Your task to perform on an android device: Open Amazon Image 0: 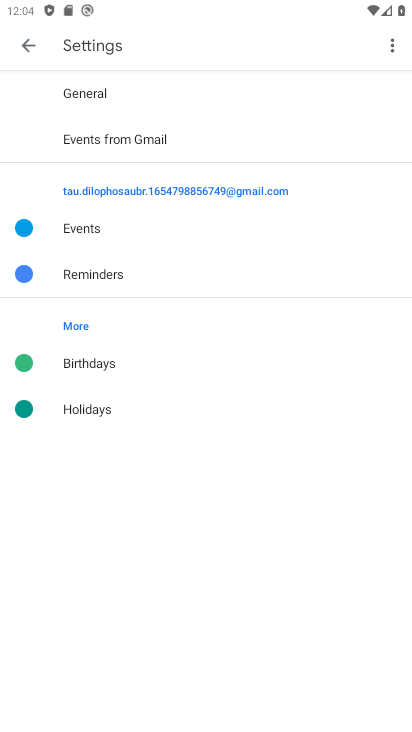
Step 0: press home button
Your task to perform on an android device: Open Amazon Image 1: 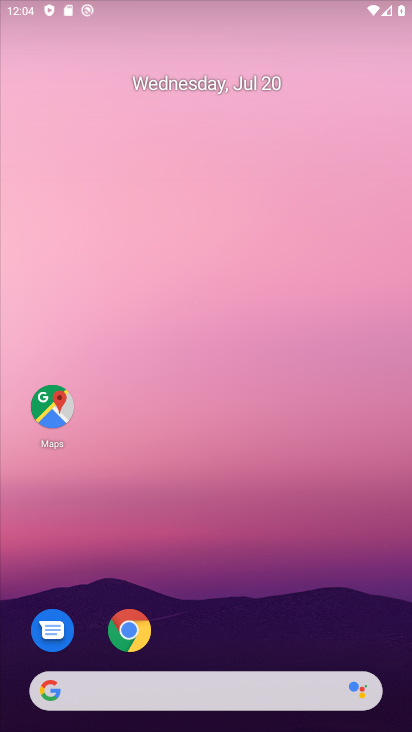
Step 1: press home button
Your task to perform on an android device: Open Amazon Image 2: 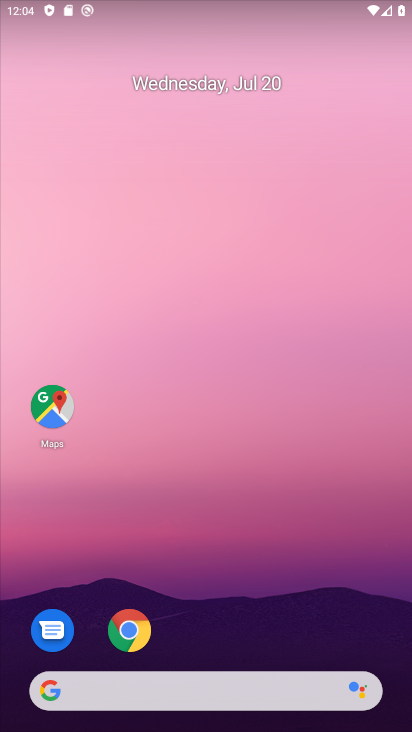
Step 2: drag from (185, 154) to (161, 81)
Your task to perform on an android device: Open Amazon Image 3: 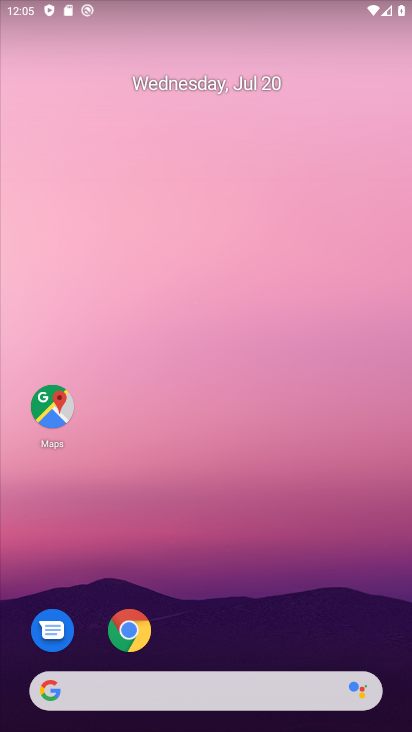
Step 3: click (53, 690)
Your task to perform on an android device: Open Amazon Image 4: 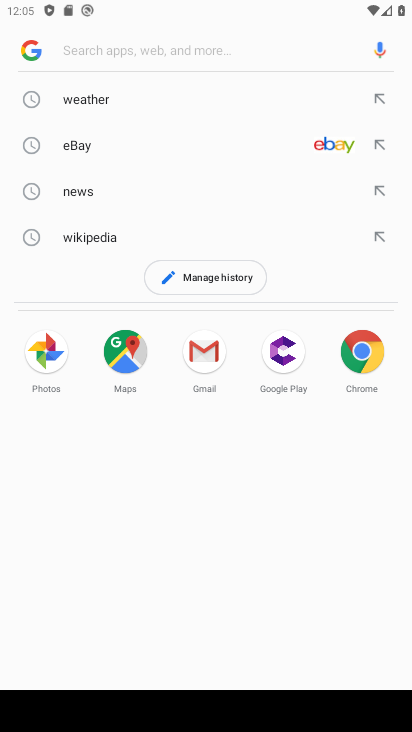
Step 4: type "Amazon"
Your task to perform on an android device: Open Amazon Image 5: 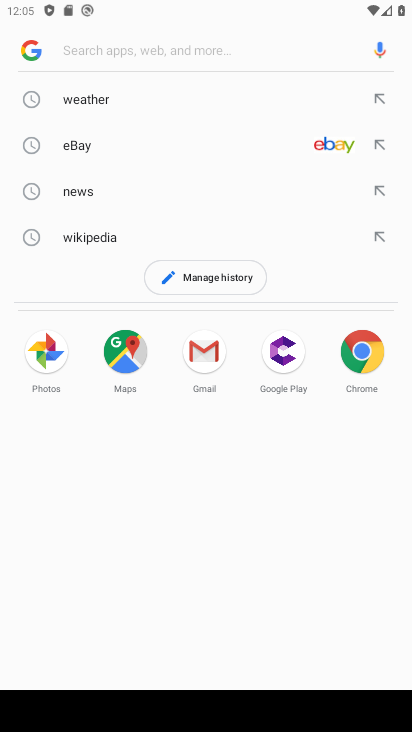
Step 5: click (72, 47)
Your task to perform on an android device: Open Amazon Image 6: 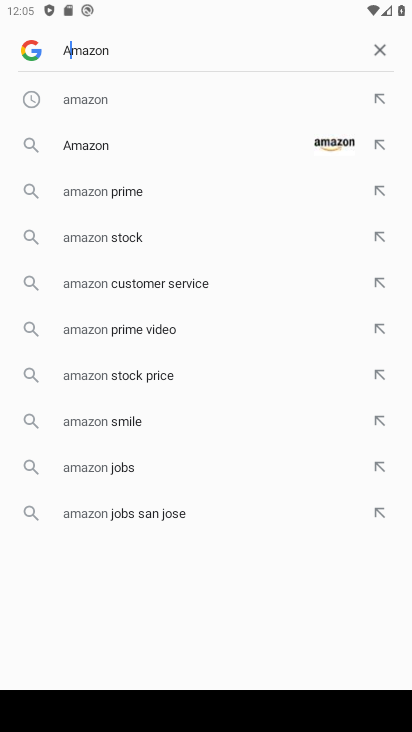
Step 6: click (331, 142)
Your task to perform on an android device: Open Amazon Image 7: 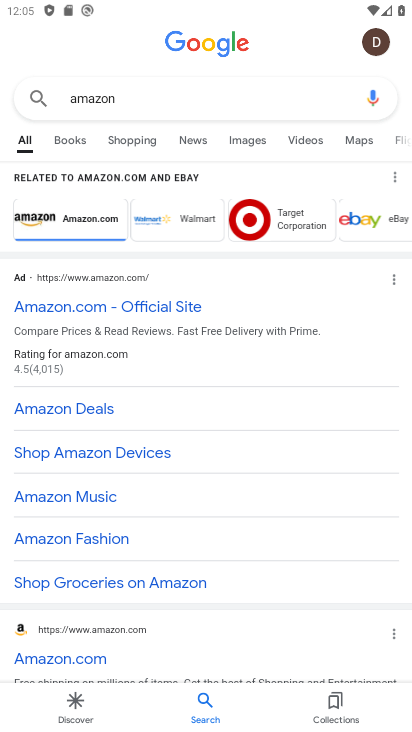
Step 7: click (70, 659)
Your task to perform on an android device: Open Amazon Image 8: 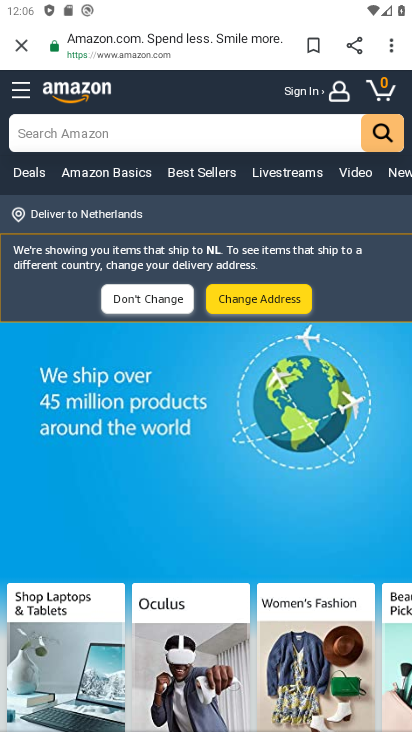
Step 8: task complete